Your task to perform on an android device: Open settings Image 0: 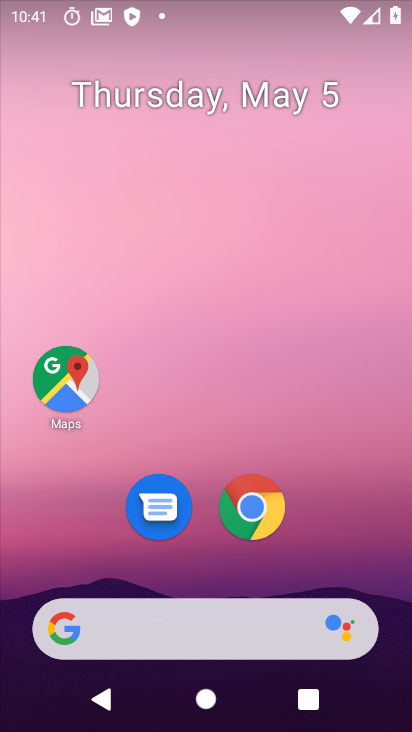
Step 0: drag from (341, 584) to (365, 26)
Your task to perform on an android device: Open settings Image 1: 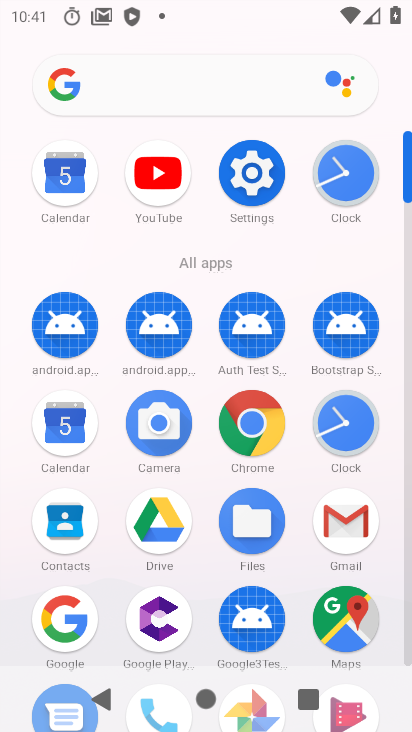
Step 1: click (253, 175)
Your task to perform on an android device: Open settings Image 2: 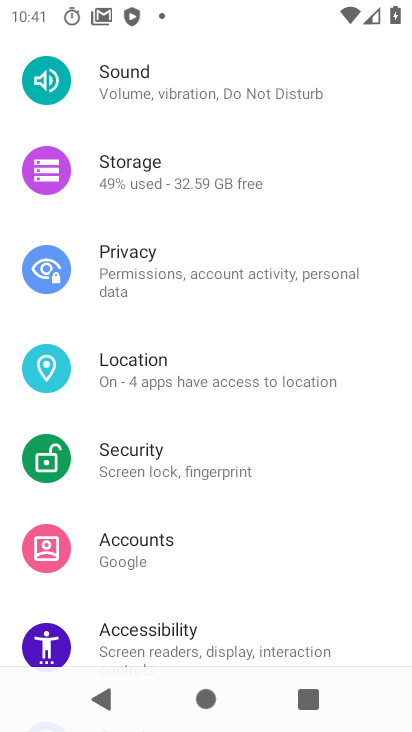
Step 2: task complete